Your task to perform on an android device: Open settings on Google Maps Image 0: 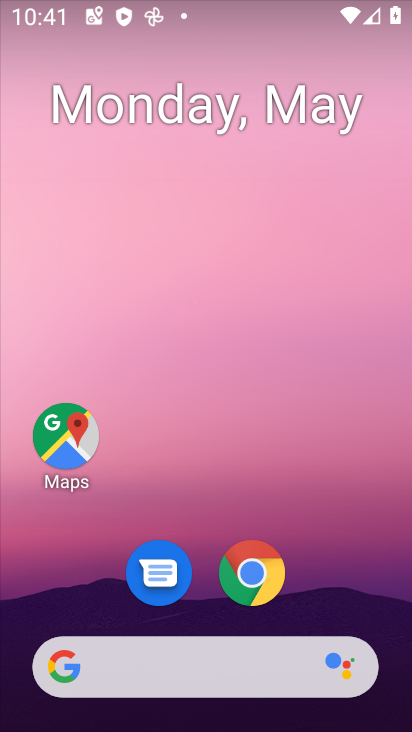
Step 0: click (88, 459)
Your task to perform on an android device: Open settings on Google Maps Image 1: 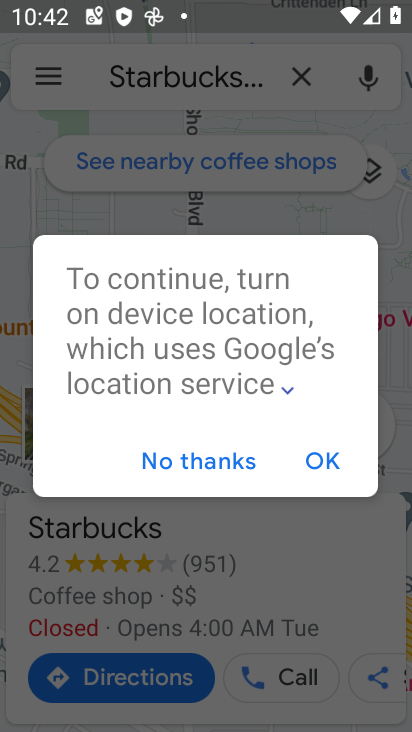
Step 1: click (310, 461)
Your task to perform on an android device: Open settings on Google Maps Image 2: 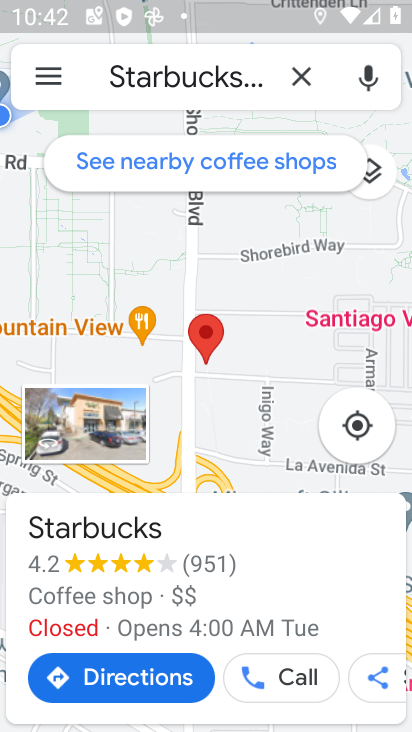
Step 2: click (53, 68)
Your task to perform on an android device: Open settings on Google Maps Image 3: 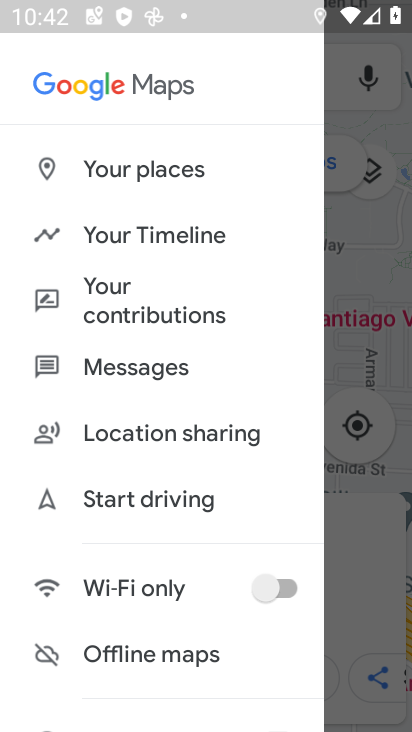
Step 3: drag from (190, 642) to (172, 290)
Your task to perform on an android device: Open settings on Google Maps Image 4: 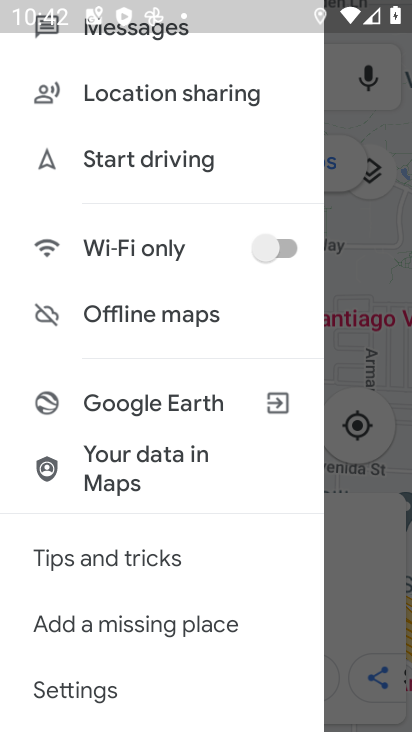
Step 4: click (108, 691)
Your task to perform on an android device: Open settings on Google Maps Image 5: 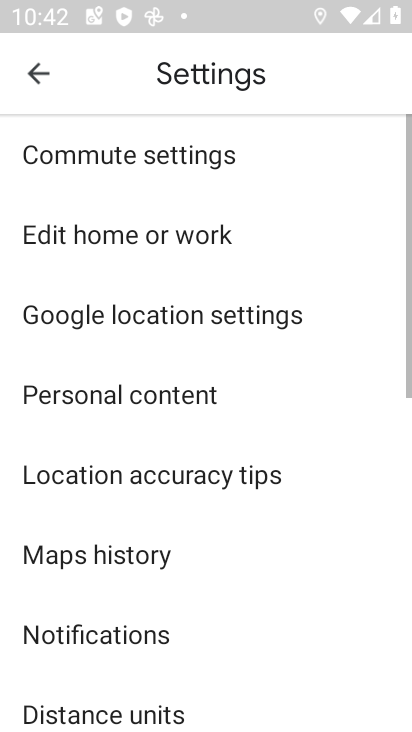
Step 5: task complete